Your task to perform on an android device: change notifications settings Image 0: 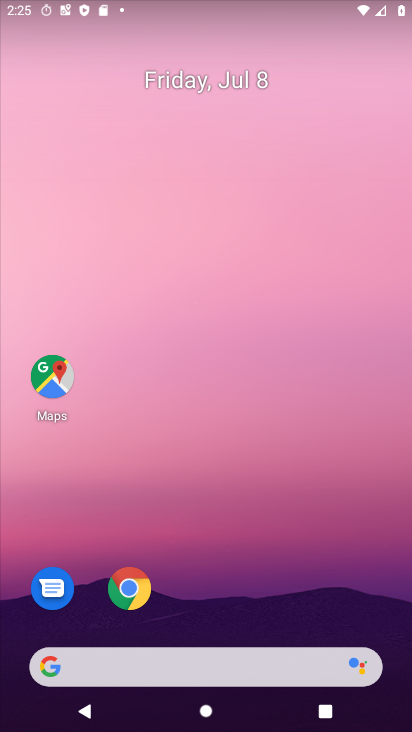
Step 0: press home button
Your task to perform on an android device: change notifications settings Image 1: 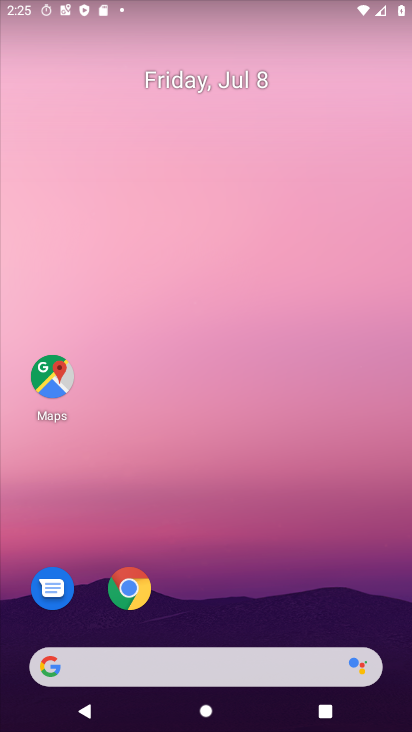
Step 1: press home button
Your task to perform on an android device: change notifications settings Image 2: 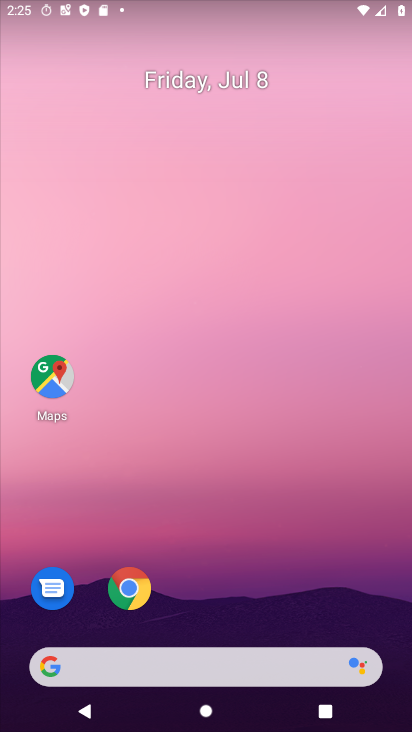
Step 2: drag from (226, 621) to (222, 148)
Your task to perform on an android device: change notifications settings Image 3: 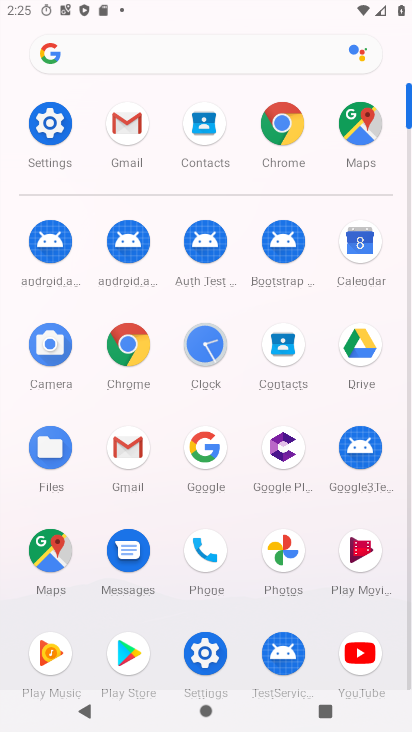
Step 3: click (41, 123)
Your task to perform on an android device: change notifications settings Image 4: 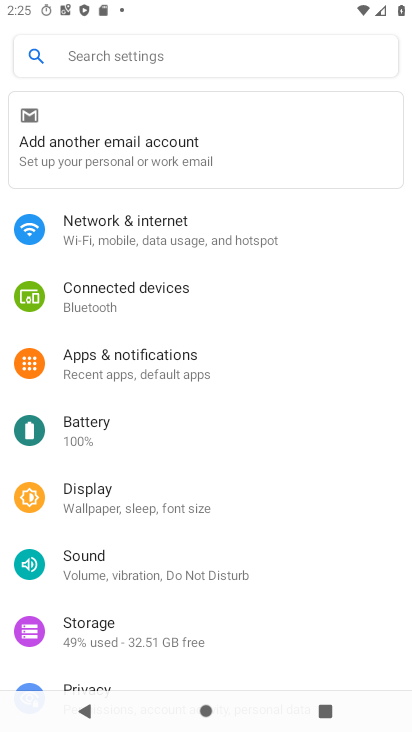
Step 4: click (128, 360)
Your task to perform on an android device: change notifications settings Image 5: 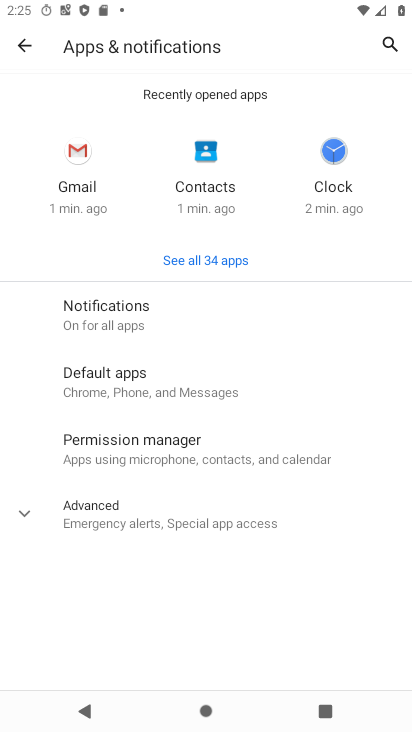
Step 5: click (96, 311)
Your task to perform on an android device: change notifications settings Image 6: 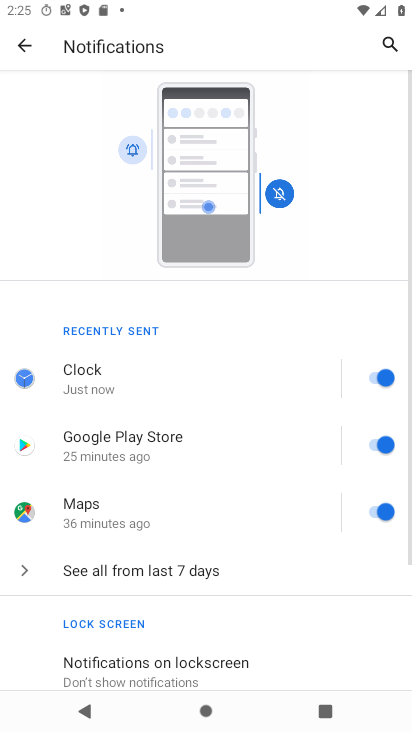
Step 6: drag from (259, 589) to (325, 202)
Your task to perform on an android device: change notifications settings Image 7: 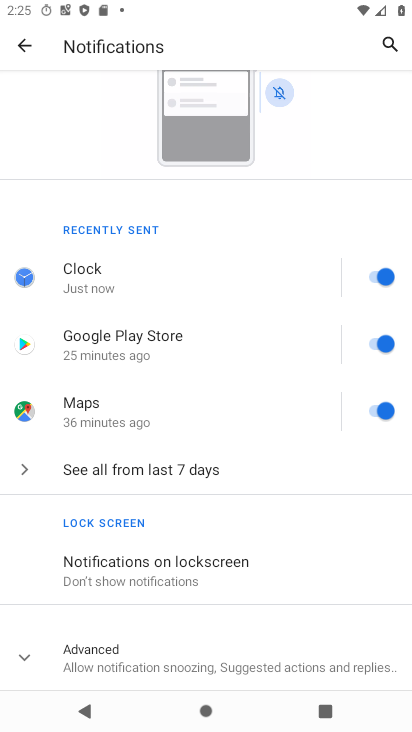
Step 7: click (162, 576)
Your task to perform on an android device: change notifications settings Image 8: 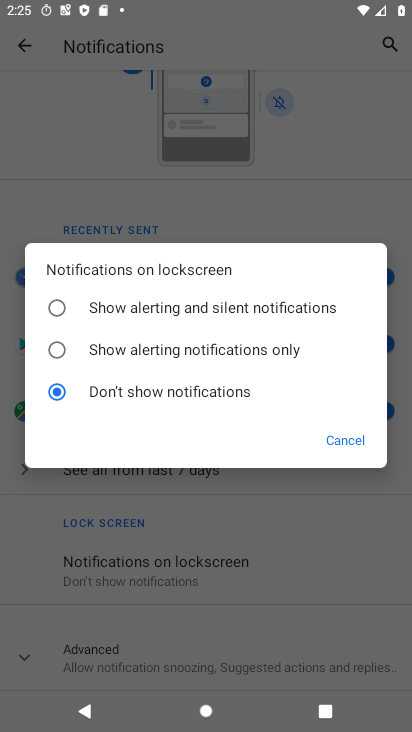
Step 8: click (57, 311)
Your task to perform on an android device: change notifications settings Image 9: 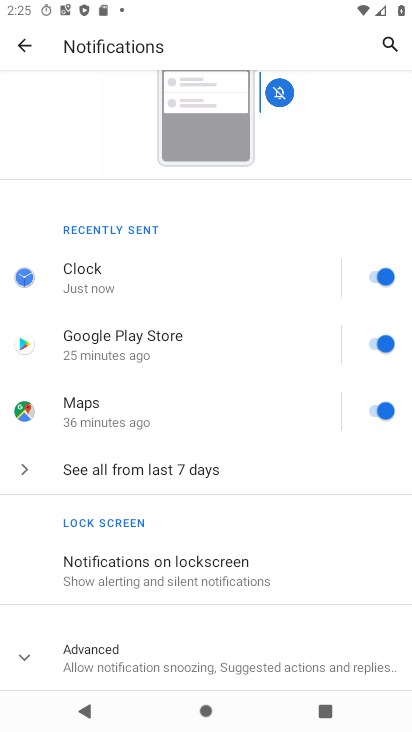
Step 9: task complete